Your task to perform on an android device: uninstall "NewsBreak: Local News & Alerts" Image 0: 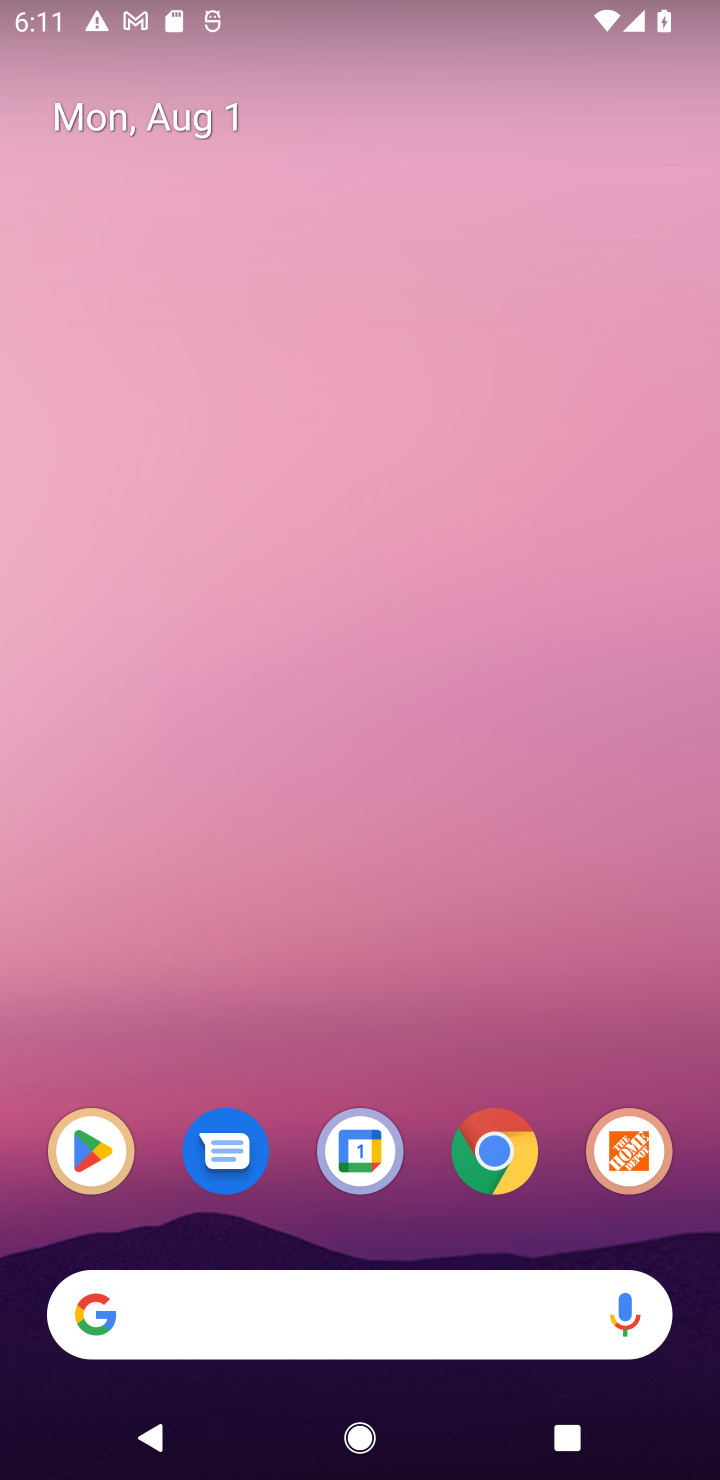
Step 0: drag from (336, 1308) to (543, 4)
Your task to perform on an android device: uninstall "NewsBreak: Local News & Alerts" Image 1: 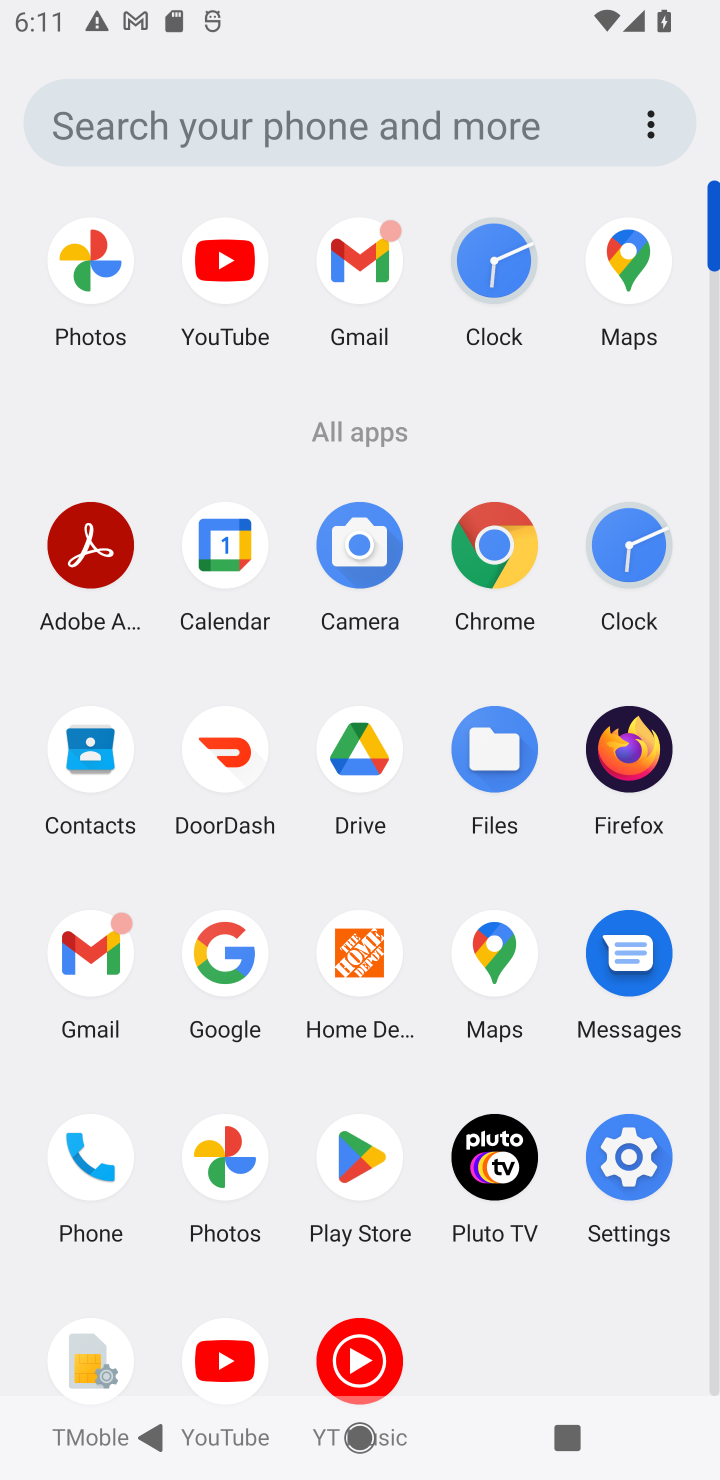
Step 1: click (352, 1171)
Your task to perform on an android device: uninstall "NewsBreak: Local News & Alerts" Image 2: 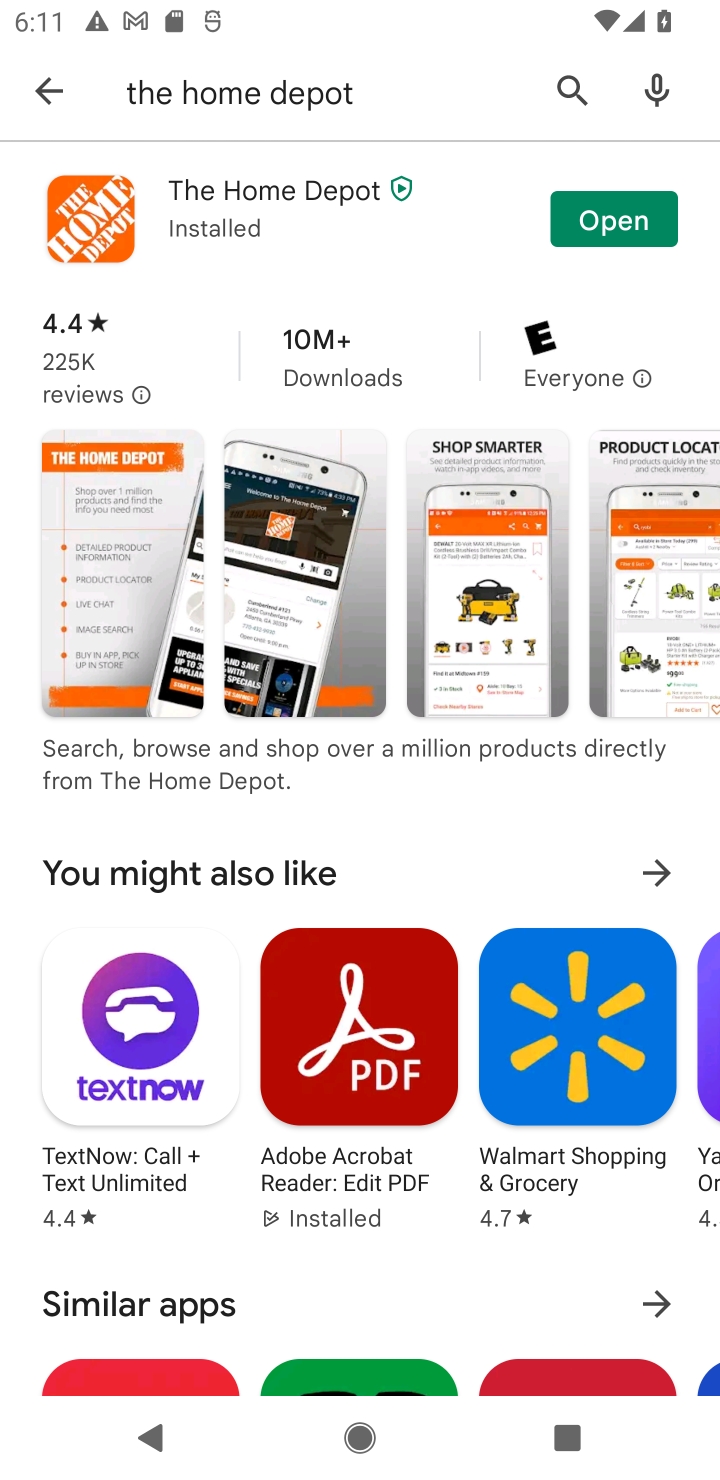
Step 2: click (575, 92)
Your task to perform on an android device: uninstall "NewsBreak: Local News & Alerts" Image 3: 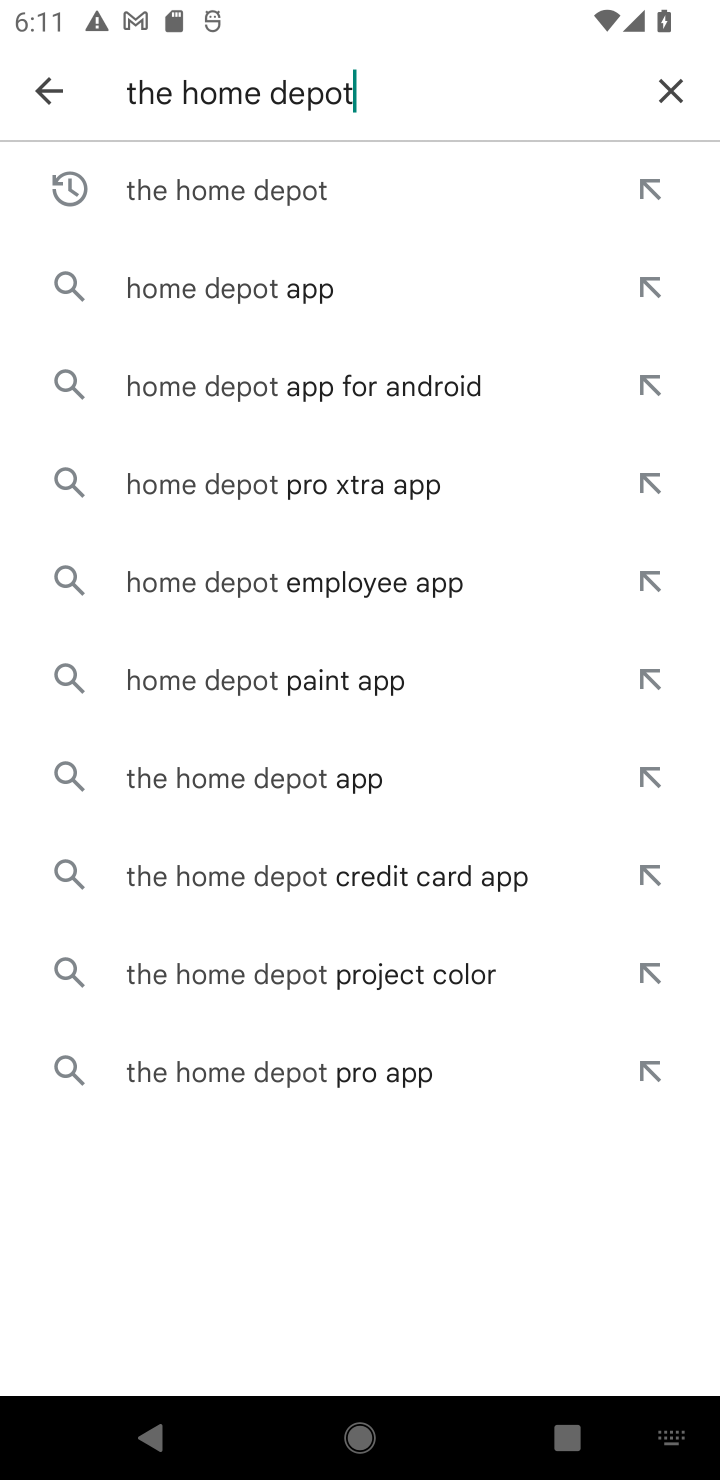
Step 3: click (667, 92)
Your task to perform on an android device: uninstall "NewsBreak: Local News & Alerts" Image 4: 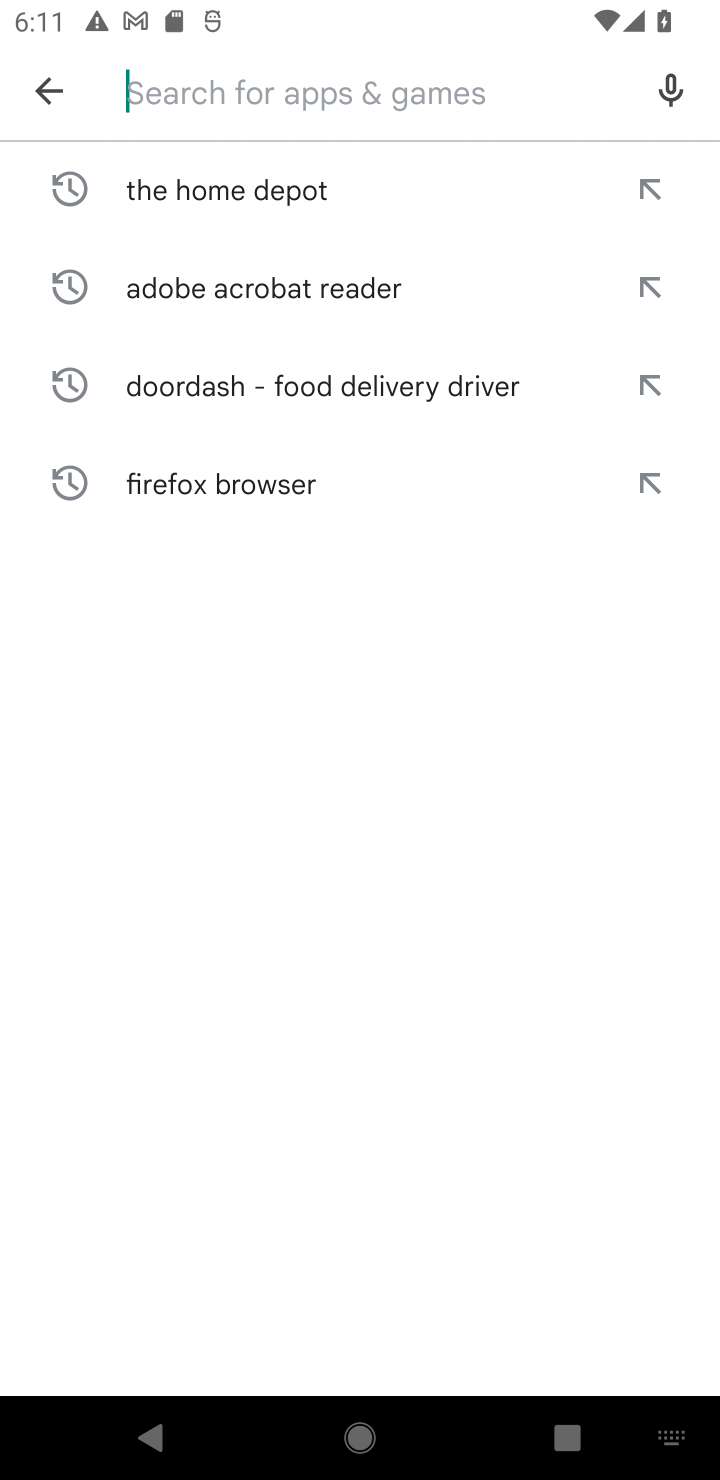
Step 4: type "newsbreak: local news & alert"
Your task to perform on an android device: uninstall "NewsBreak: Local News & Alerts" Image 5: 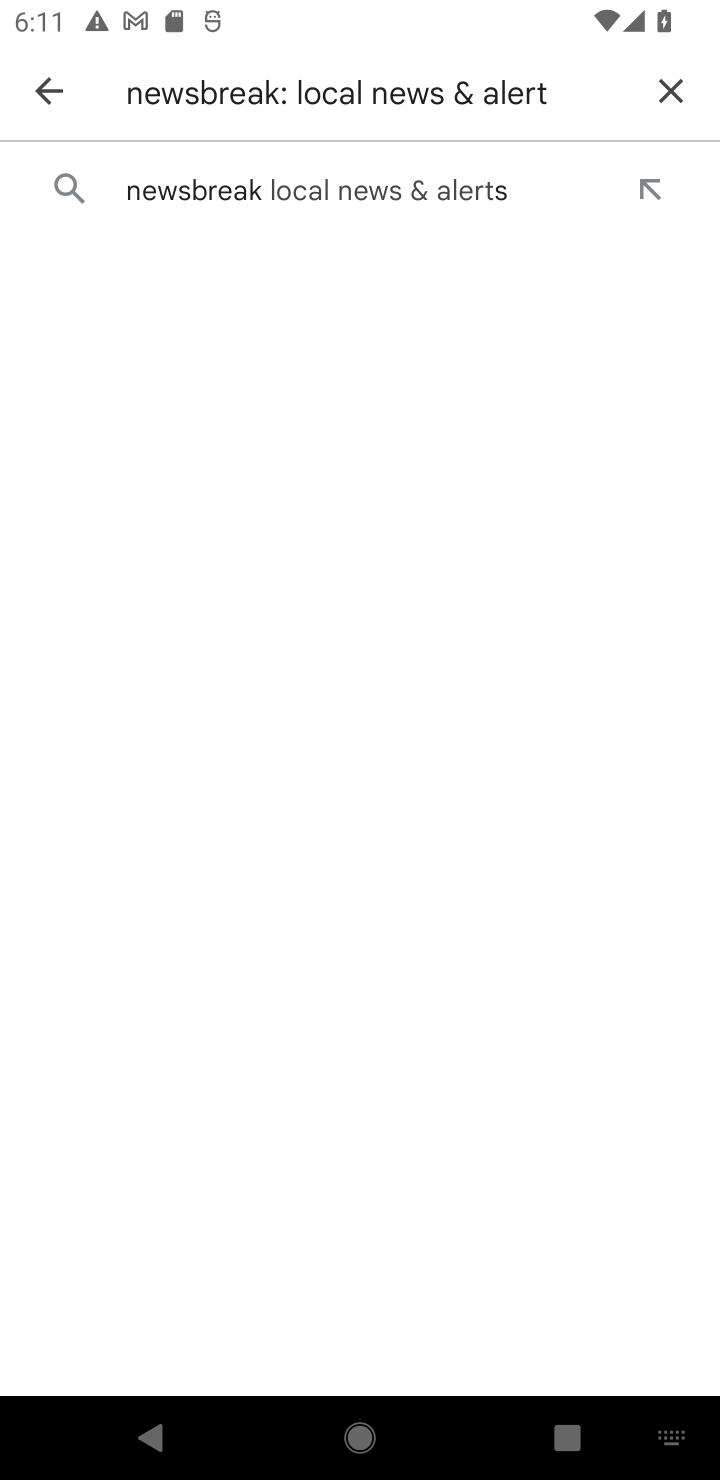
Step 5: click (355, 199)
Your task to perform on an android device: uninstall "NewsBreak: Local News & Alerts" Image 6: 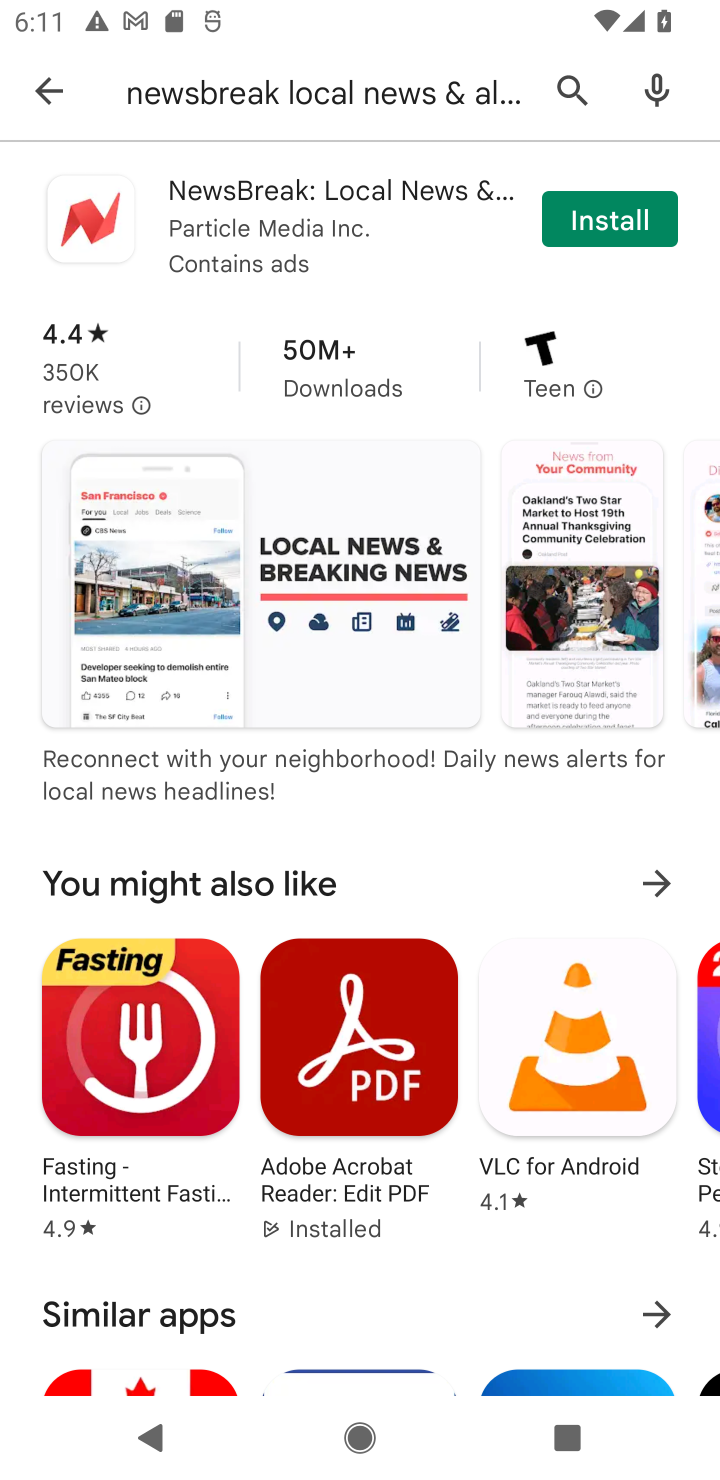
Step 6: task complete